Your task to perform on an android device: Go to Amazon Image 0: 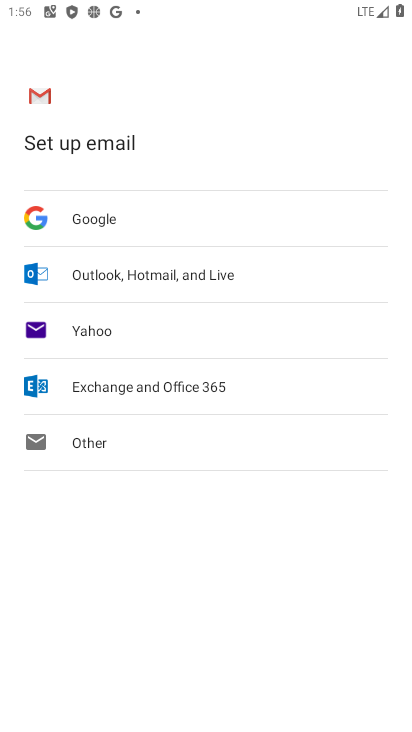
Step 0: press home button
Your task to perform on an android device: Go to Amazon Image 1: 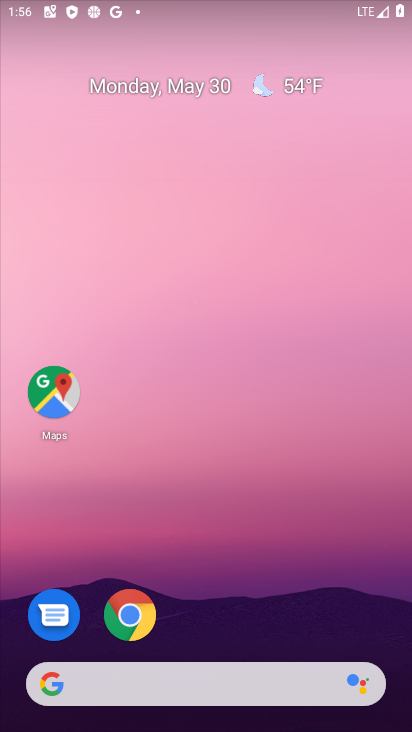
Step 1: click (146, 614)
Your task to perform on an android device: Go to Amazon Image 2: 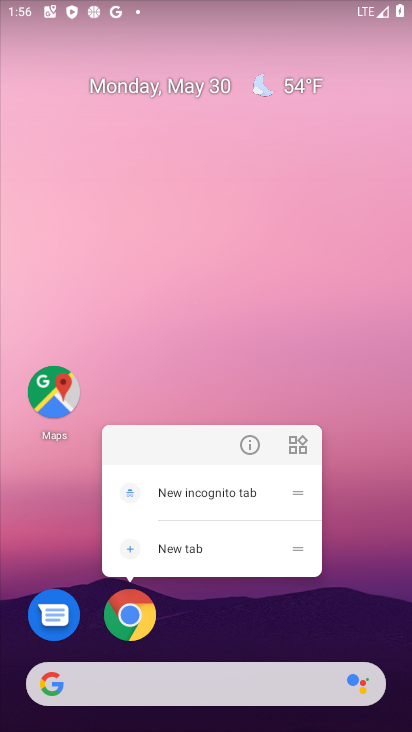
Step 2: click (133, 610)
Your task to perform on an android device: Go to Amazon Image 3: 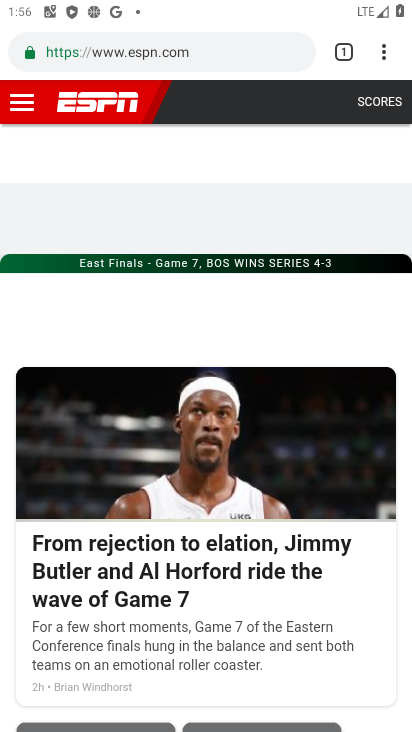
Step 3: click (342, 38)
Your task to perform on an android device: Go to Amazon Image 4: 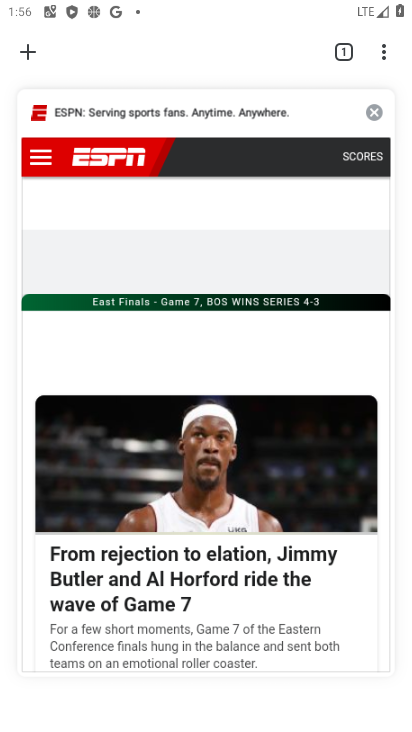
Step 4: click (380, 112)
Your task to perform on an android device: Go to Amazon Image 5: 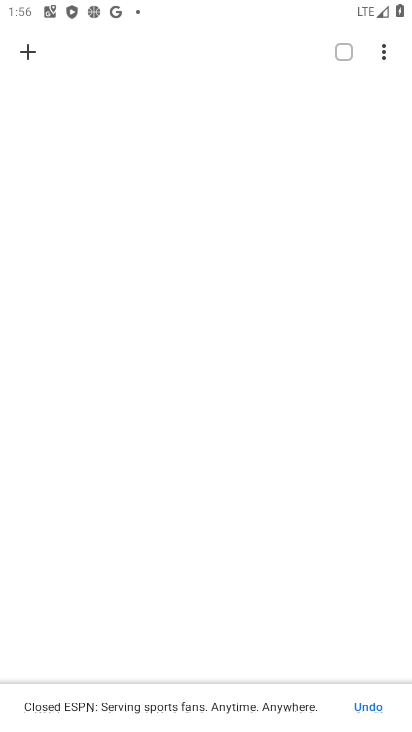
Step 5: click (34, 54)
Your task to perform on an android device: Go to Amazon Image 6: 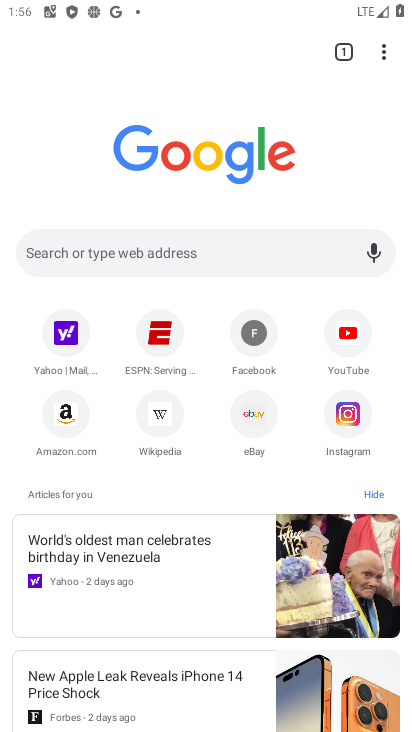
Step 6: click (66, 409)
Your task to perform on an android device: Go to Amazon Image 7: 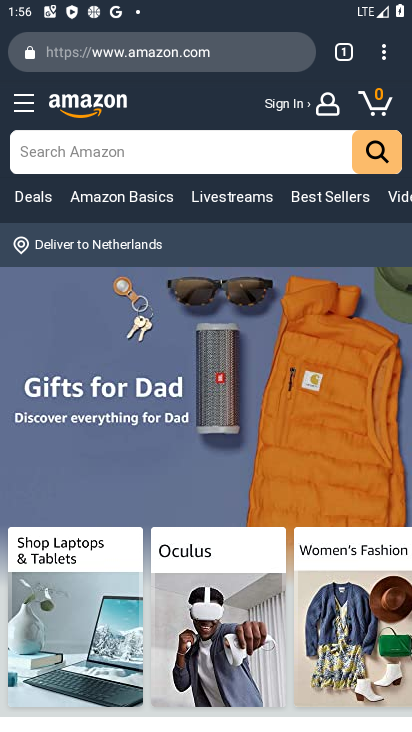
Step 7: task complete